Your task to perform on an android device: turn vacation reply on in the gmail app Image 0: 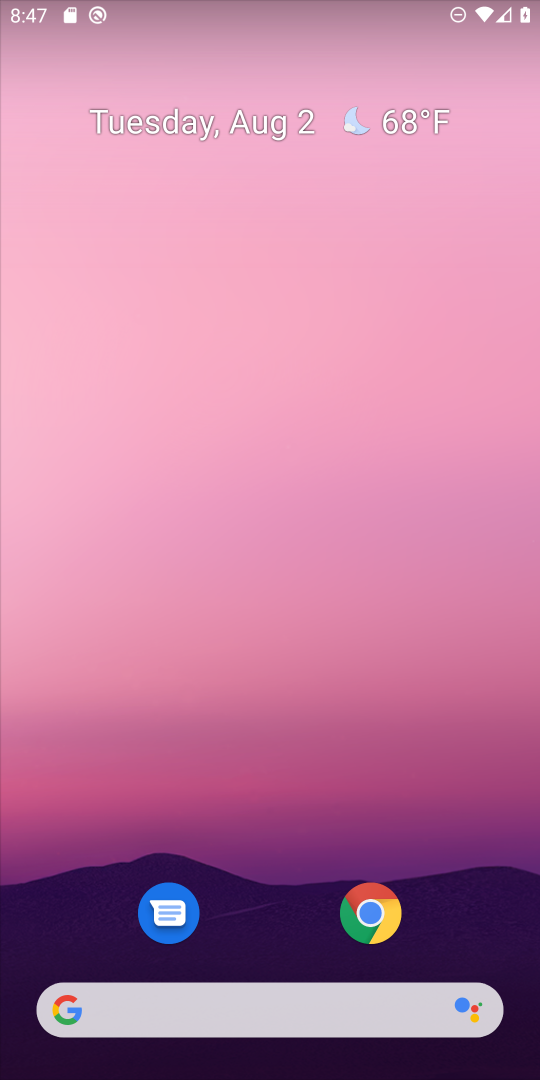
Step 0: drag from (356, 755) to (417, 82)
Your task to perform on an android device: turn vacation reply on in the gmail app Image 1: 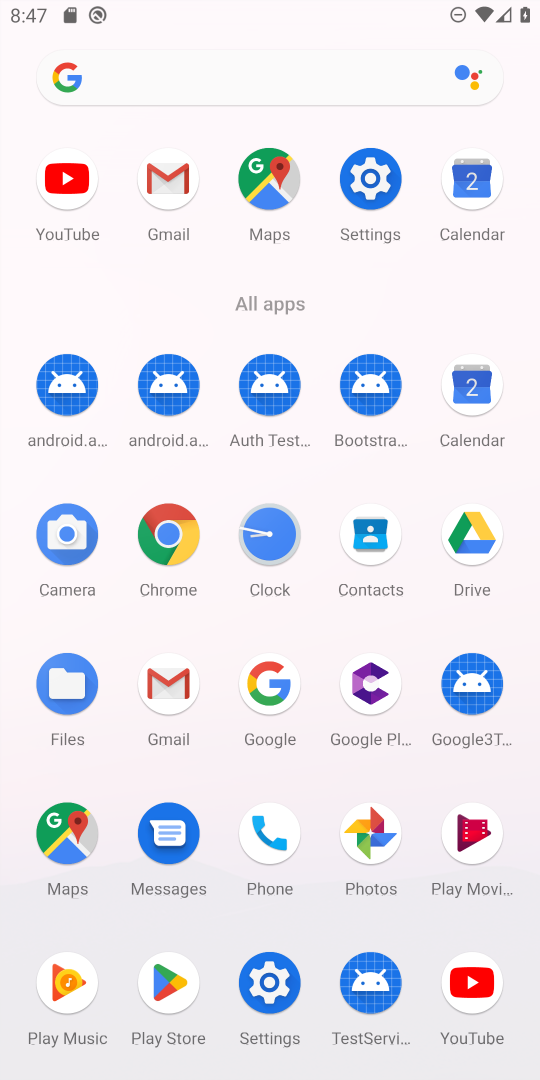
Step 1: click (161, 700)
Your task to perform on an android device: turn vacation reply on in the gmail app Image 2: 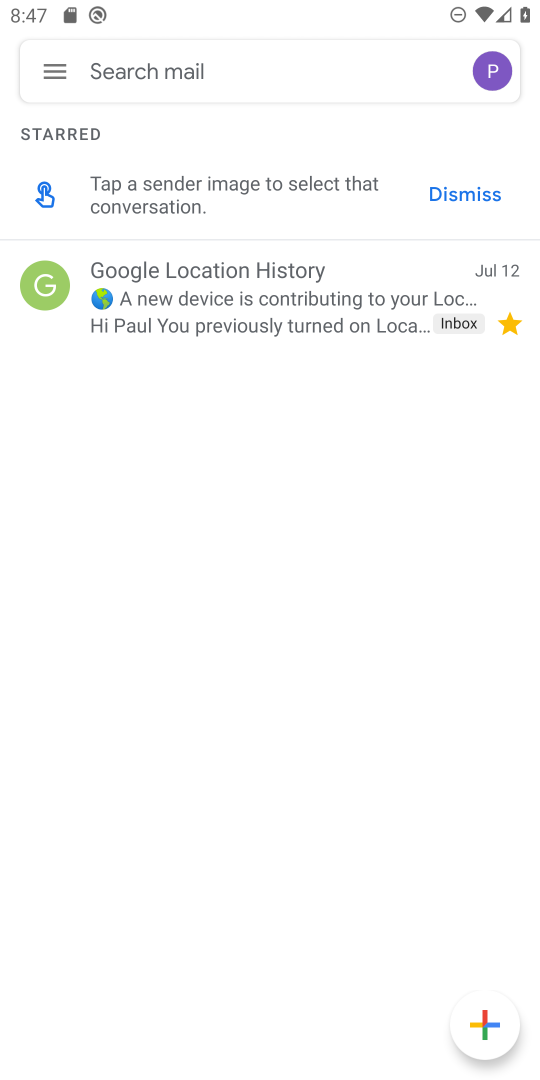
Step 2: click (51, 76)
Your task to perform on an android device: turn vacation reply on in the gmail app Image 3: 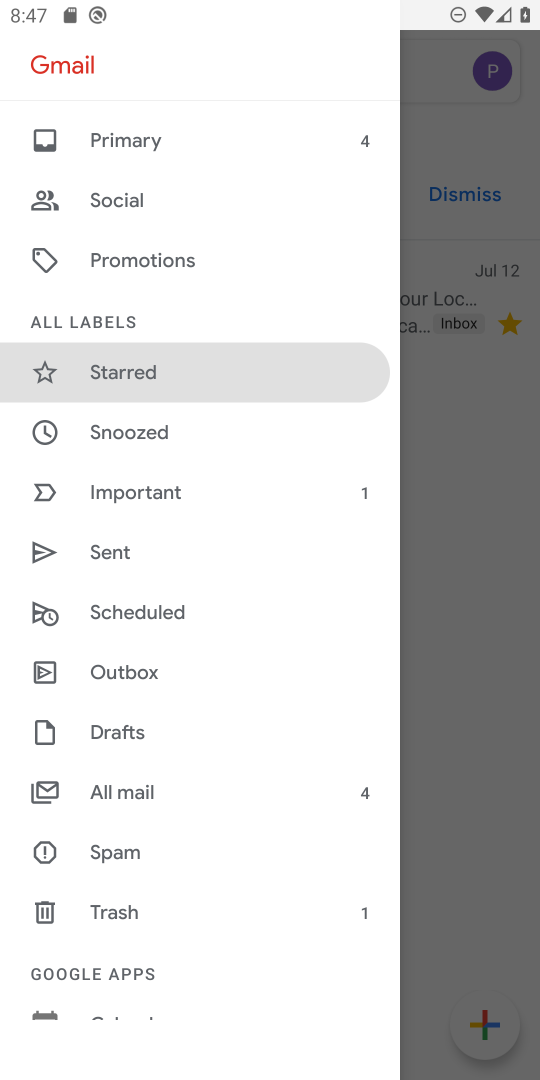
Step 3: click (442, 444)
Your task to perform on an android device: turn vacation reply on in the gmail app Image 4: 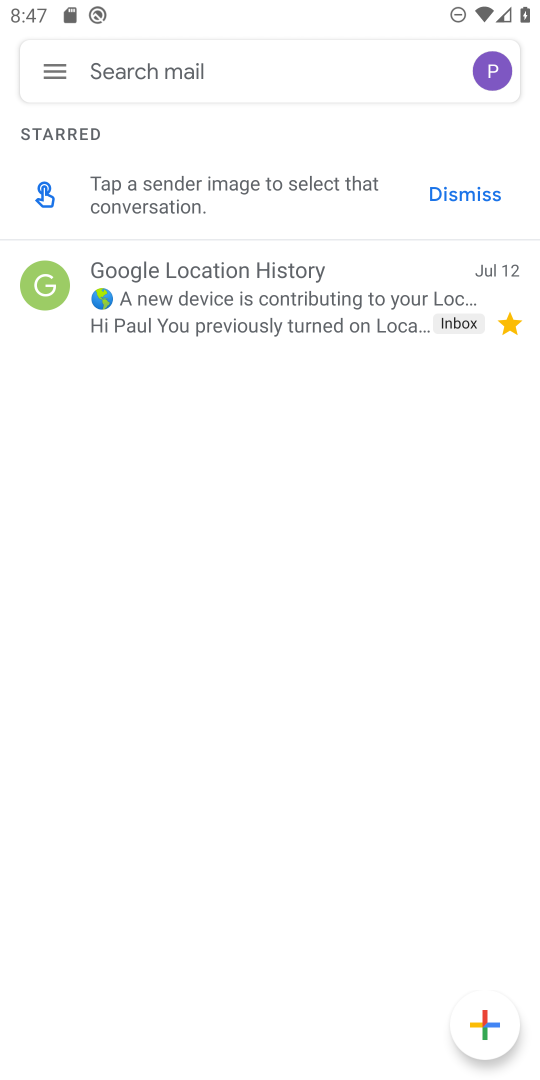
Step 4: task complete